Your task to perform on an android device: Open the calendar app, open the side menu, and click the "Day" option Image 0: 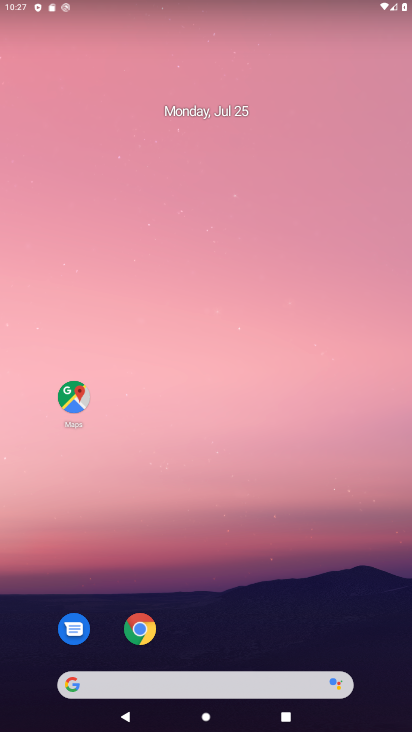
Step 0: drag from (250, 628) to (296, 124)
Your task to perform on an android device: Open the calendar app, open the side menu, and click the "Day" option Image 1: 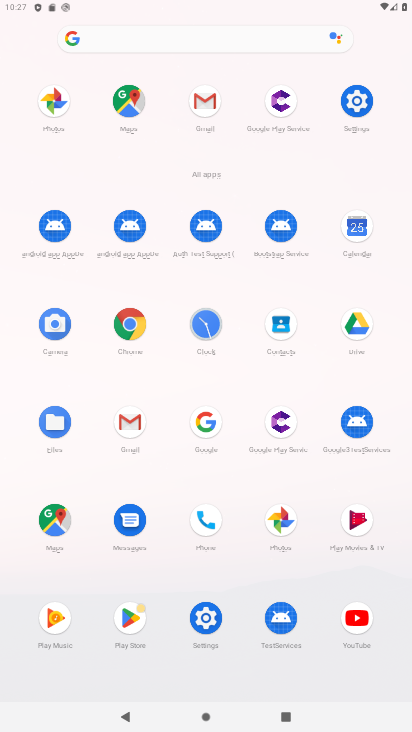
Step 1: click (359, 230)
Your task to perform on an android device: Open the calendar app, open the side menu, and click the "Day" option Image 2: 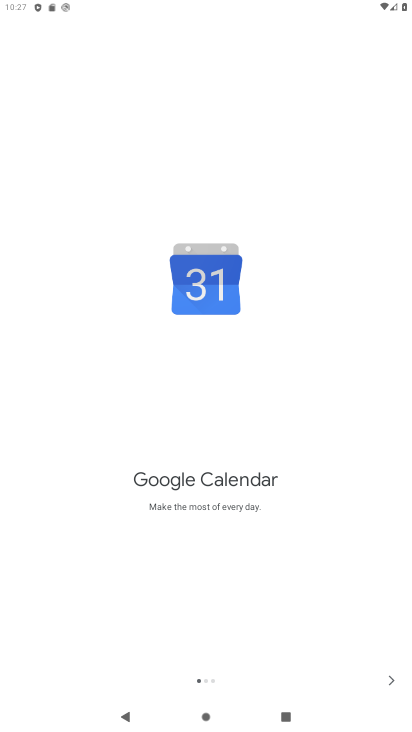
Step 2: click (397, 679)
Your task to perform on an android device: Open the calendar app, open the side menu, and click the "Day" option Image 3: 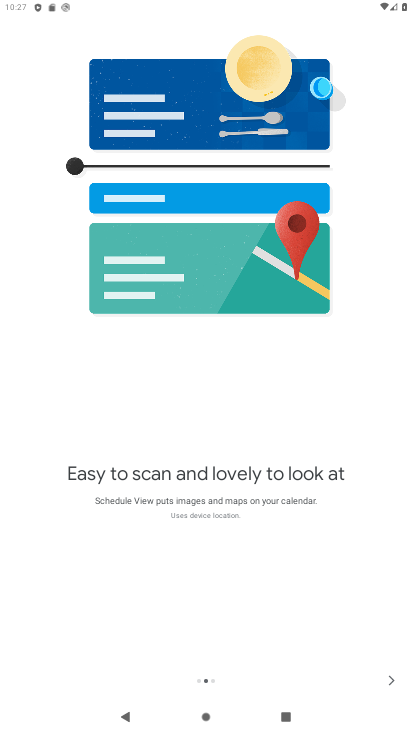
Step 3: click (397, 679)
Your task to perform on an android device: Open the calendar app, open the side menu, and click the "Day" option Image 4: 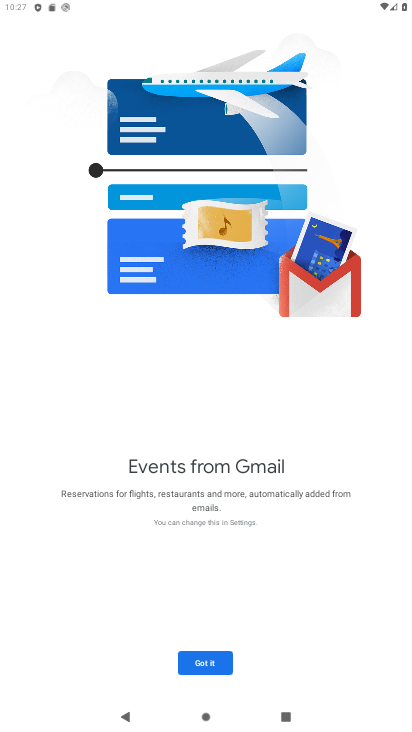
Step 4: click (206, 663)
Your task to perform on an android device: Open the calendar app, open the side menu, and click the "Day" option Image 5: 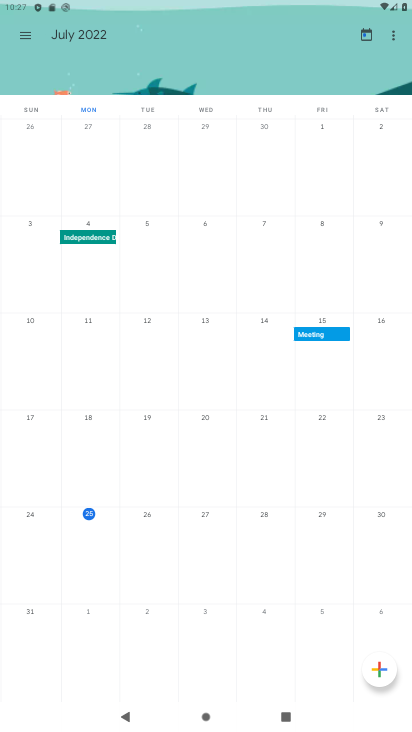
Step 5: click (22, 41)
Your task to perform on an android device: Open the calendar app, open the side menu, and click the "Day" option Image 6: 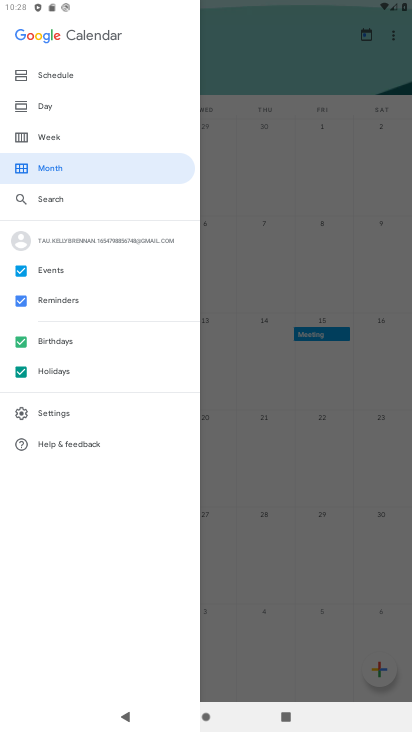
Step 6: click (52, 106)
Your task to perform on an android device: Open the calendar app, open the side menu, and click the "Day" option Image 7: 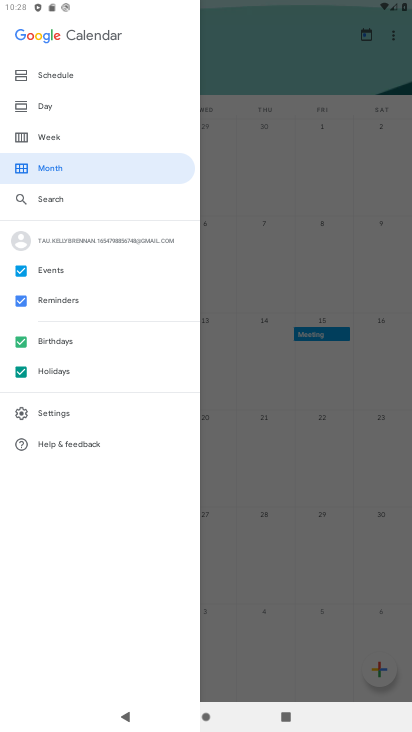
Step 7: click (60, 106)
Your task to perform on an android device: Open the calendar app, open the side menu, and click the "Day" option Image 8: 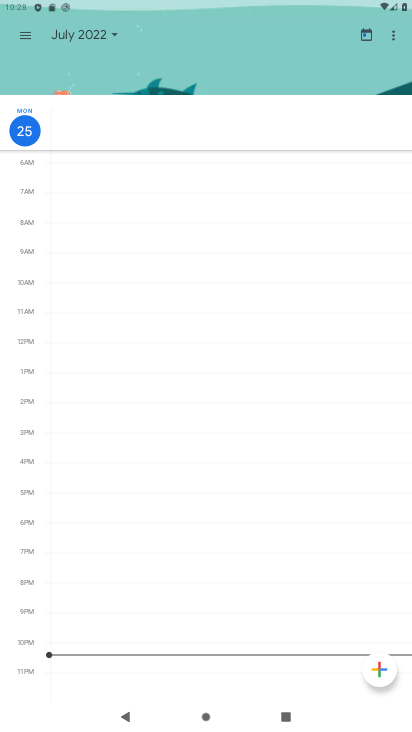
Step 8: task complete